Your task to perform on an android device: Open Android settings Image 0: 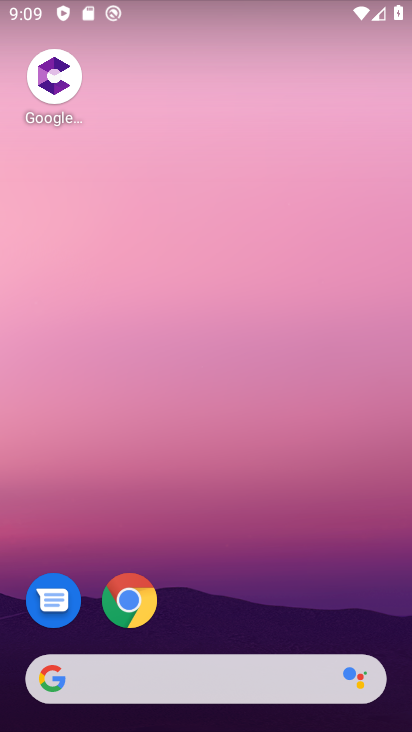
Step 0: drag from (242, 630) to (238, 401)
Your task to perform on an android device: Open Android settings Image 1: 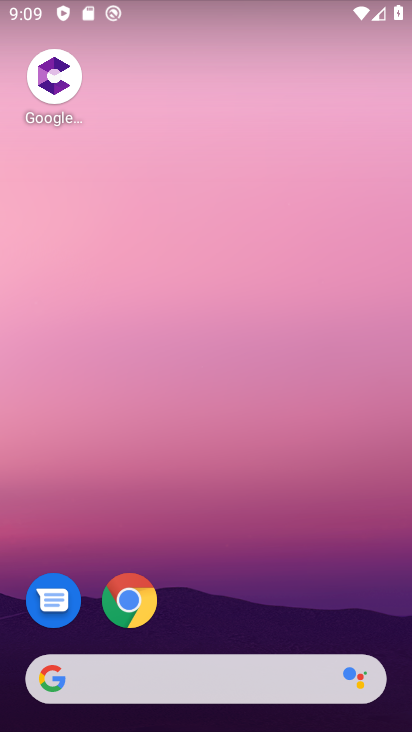
Step 1: drag from (237, 576) to (239, 478)
Your task to perform on an android device: Open Android settings Image 2: 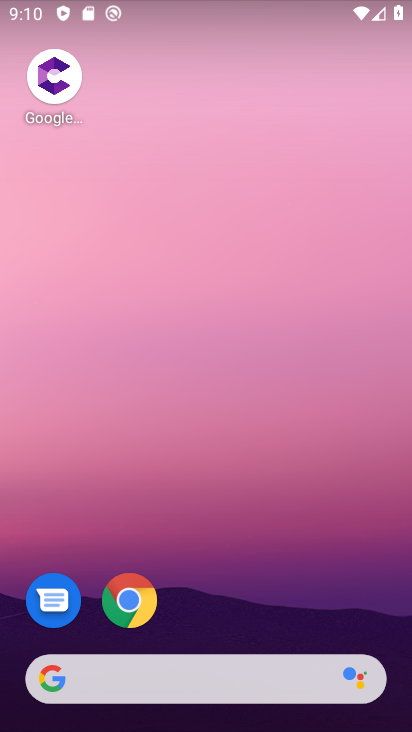
Step 2: click (219, 624)
Your task to perform on an android device: Open Android settings Image 3: 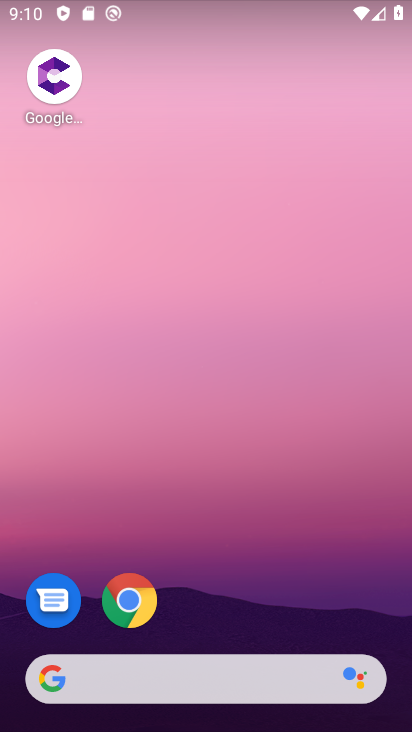
Step 3: drag from (192, 638) to (216, 2)
Your task to perform on an android device: Open Android settings Image 4: 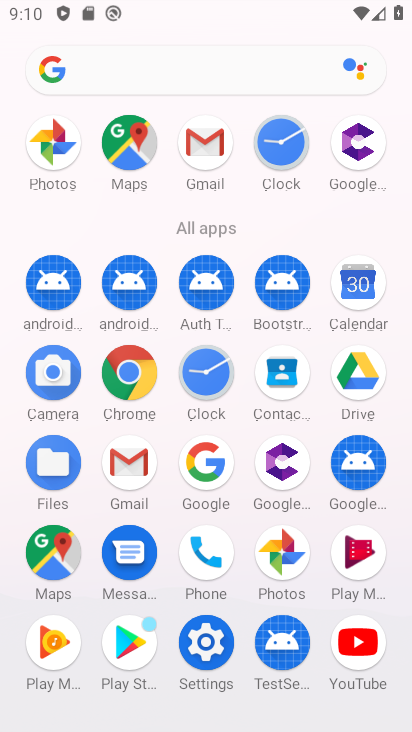
Step 4: click (196, 651)
Your task to perform on an android device: Open Android settings Image 5: 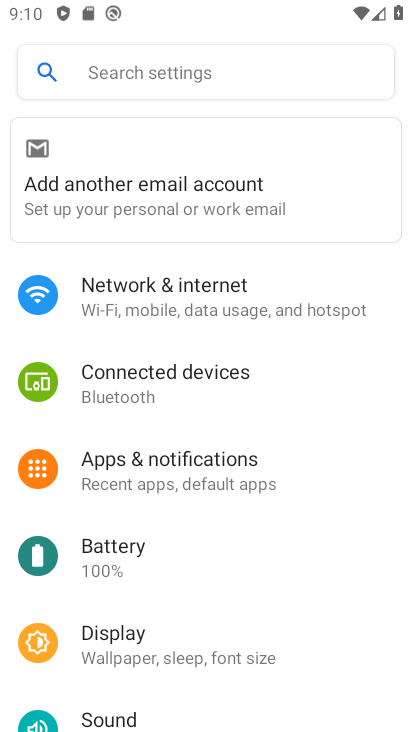
Step 5: task complete